Your task to perform on an android device: allow cookies in the chrome app Image 0: 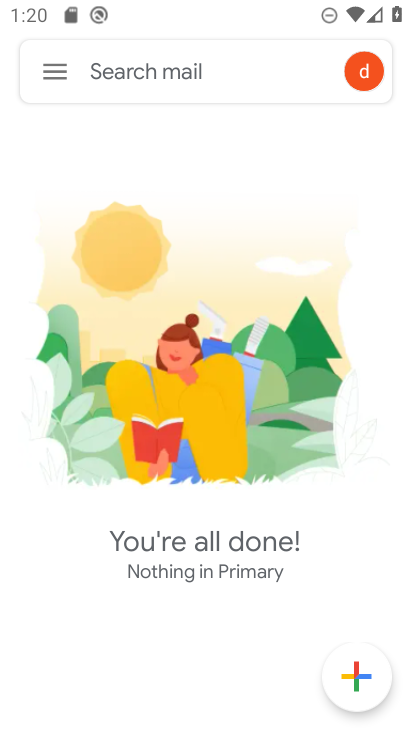
Step 0: press home button
Your task to perform on an android device: allow cookies in the chrome app Image 1: 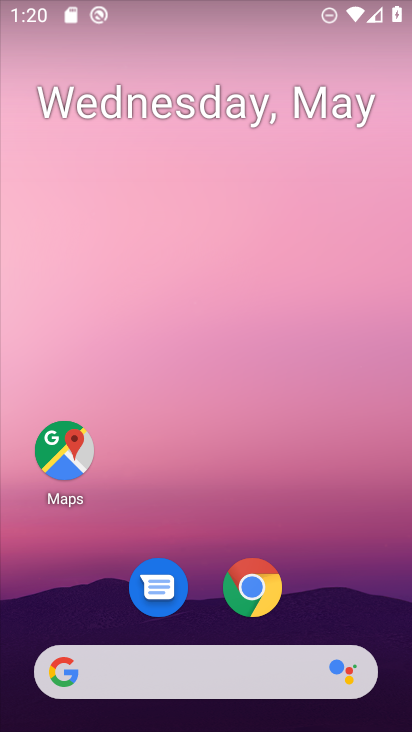
Step 1: click (247, 599)
Your task to perform on an android device: allow cookies in the chrome app Image 2: 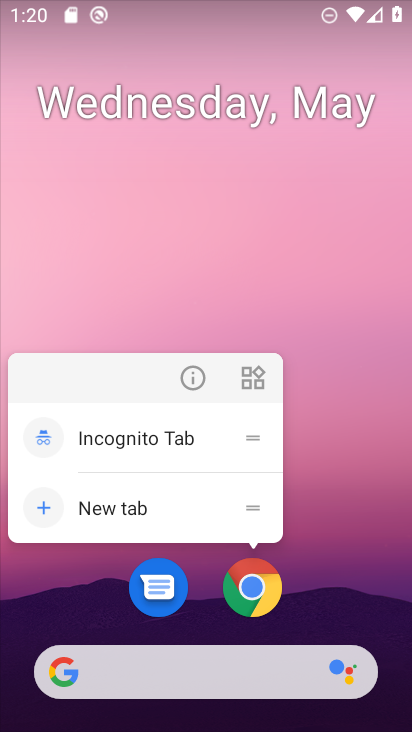
Step 2: click (247, 599)
Your task to perform on an android device: allow cookies in the chrome app Image 3: 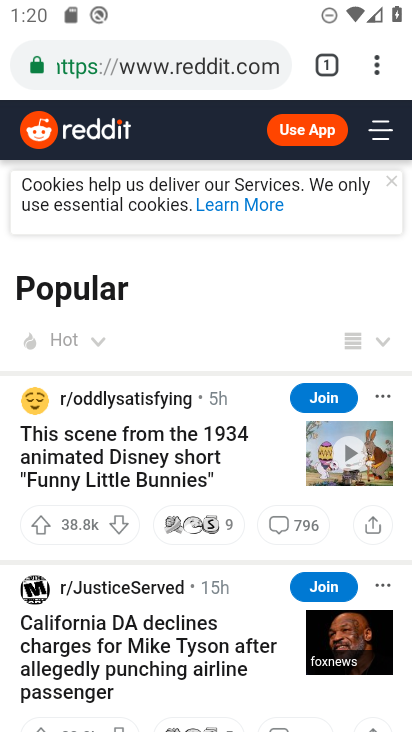
Step 3: click (380, 61)
Your task to perform on an android device: allow cookies in the chrome app Image 4: 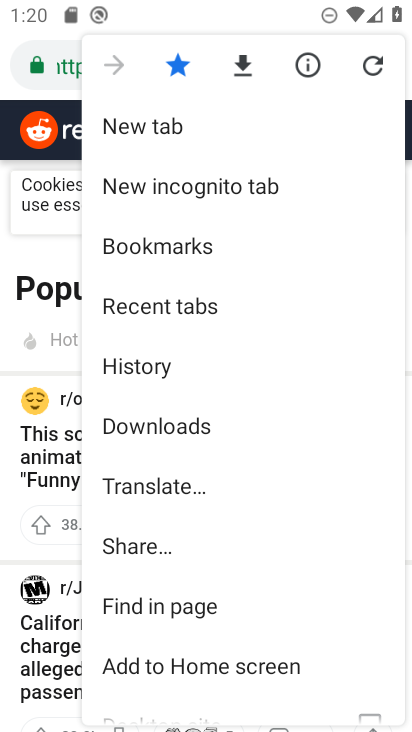
Step 4: drag from (162, 579) to (240, 357)
Your task to perform on an android device: allow cookies in the chrome app Image 5: 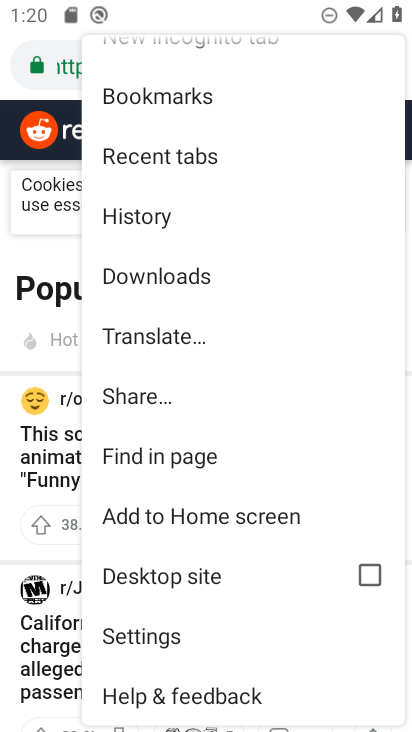
Step 5: click (153, 627)
Your task to perform on an android device: allow cookies in the chrome app Image 6: 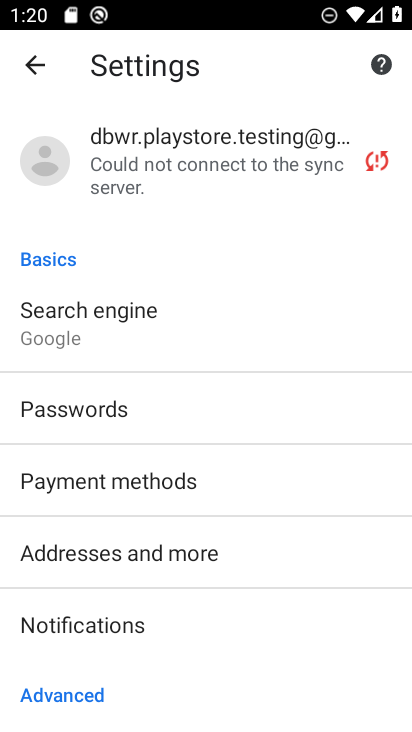
Step 6: drag from (178, 588) to (258, 297)
Your task to perform on an android device: allow cookies in the chrome app Image 7: 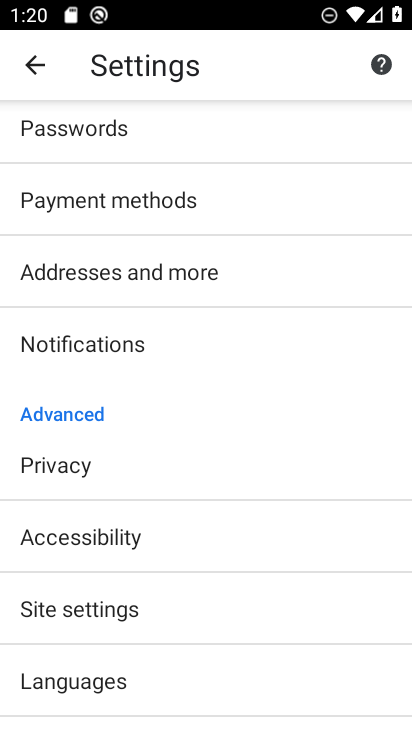
Step 7: click (93, 613)
Your task to perform on an android device: allow cookies in the chrome app Image 8: 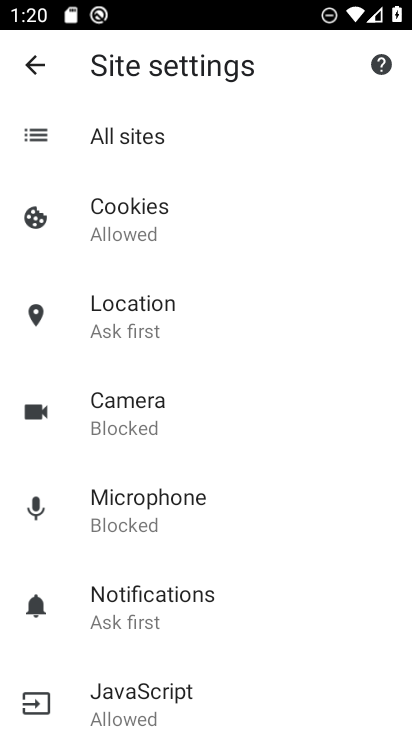
Step 8: drag from (219, 380) to (229, 321)
Your task to perform on an android device: allow cookies in the chrome app Image 9: 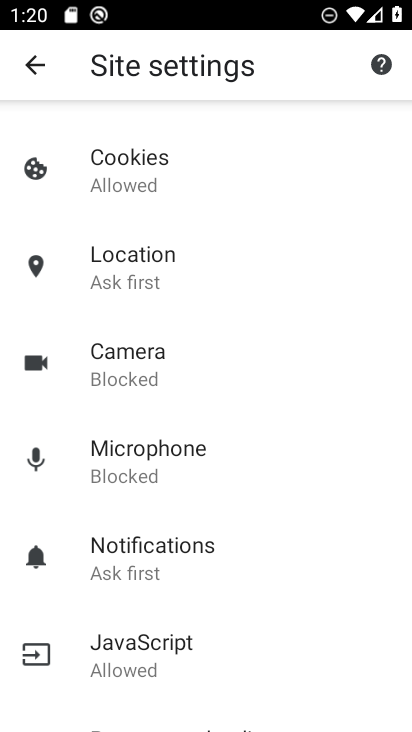
Step 9: drag from (229, 316) to (159, 584)
Your task to perform on an android device: allow cookies in the chrome app Image 10: 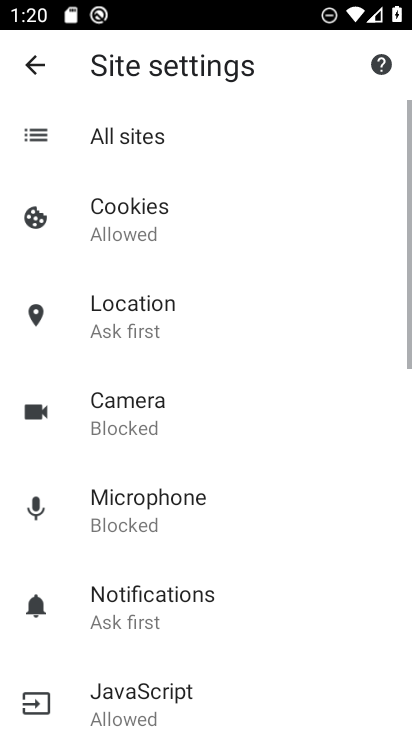
Step 10: click (110, 232)
Your task to perform on an android device: allow cookies in the chrome app Image 11: 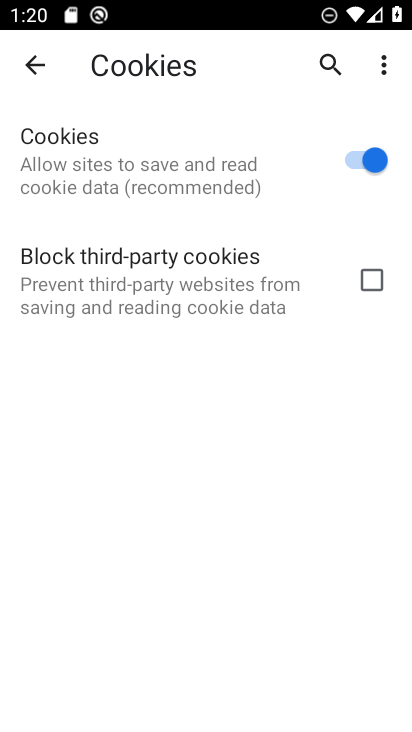
Step 11: task complete